Your task to perform on an android device: Open Chrome and go to the settings page Image 0: 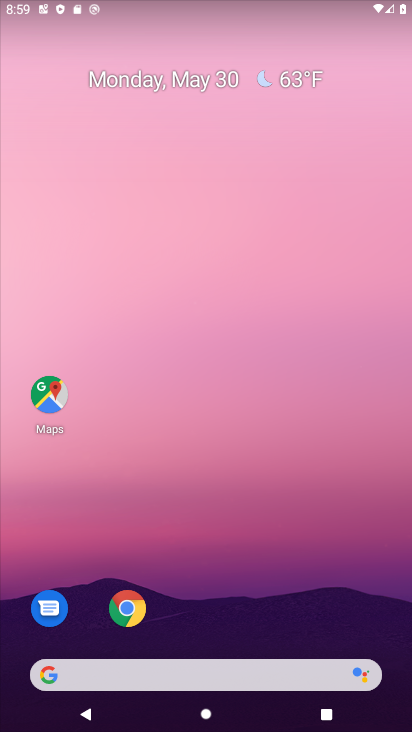
Step 0: click (120, 615)
Your task to perform on an android device: Open Chrome and go to the settings page Image 1: 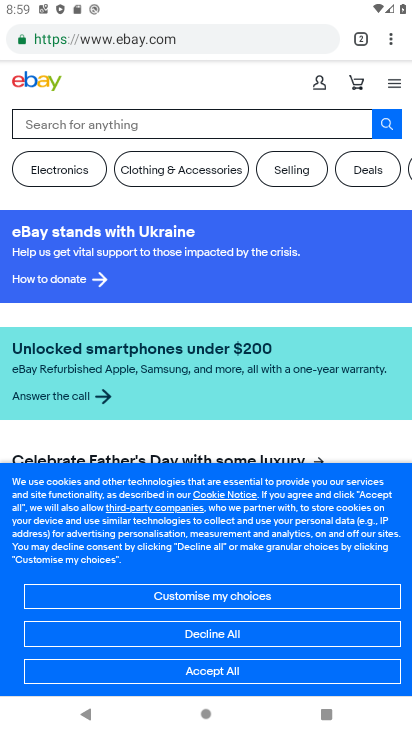
Step 1: click (389, 36)
Your task to perform on an android device: Open Chrome and go to the settings page Image 2: 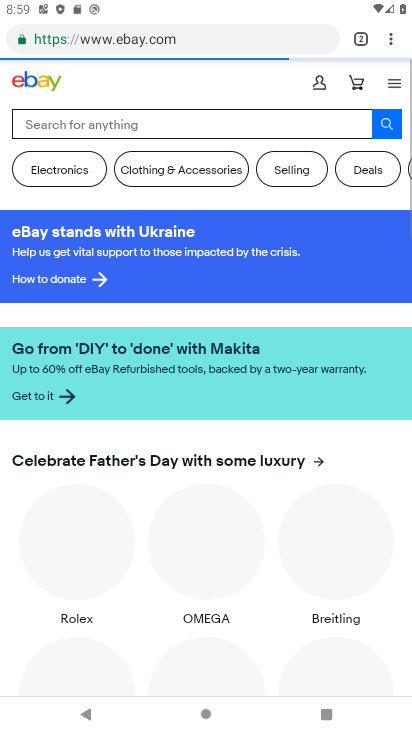
Step 2: click (389, 36)
Your task to perform on an android device: Open Chrome and go to the settings page Image 3: 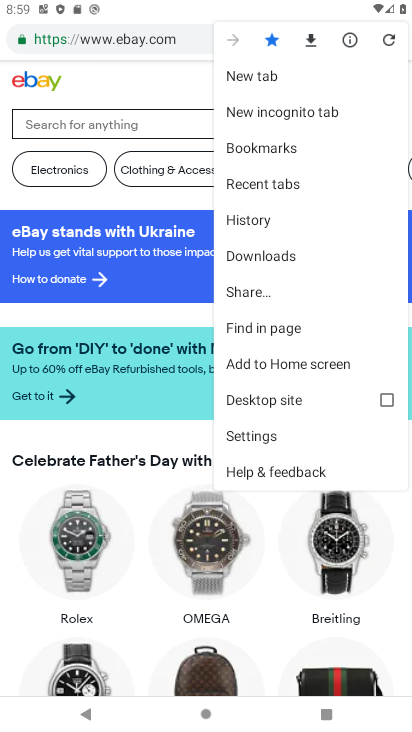
Step 3: click (238, 435)
Your task to perform on an android device: Open Chrome and go to the settings page Image 4: 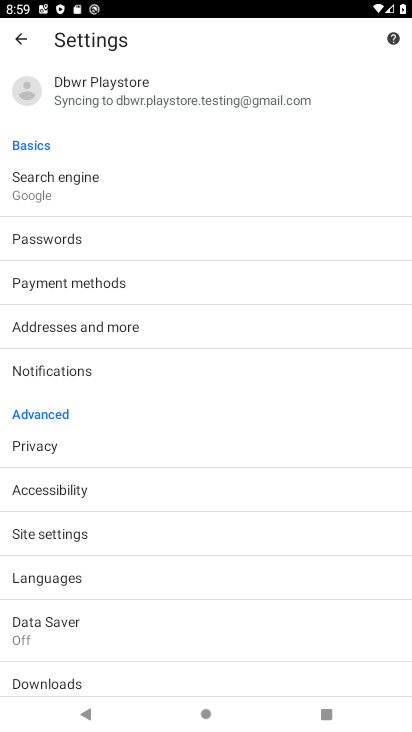
Step 4: task complete